Your task to perform on an android device: Open settings on Google Maps Image 0: 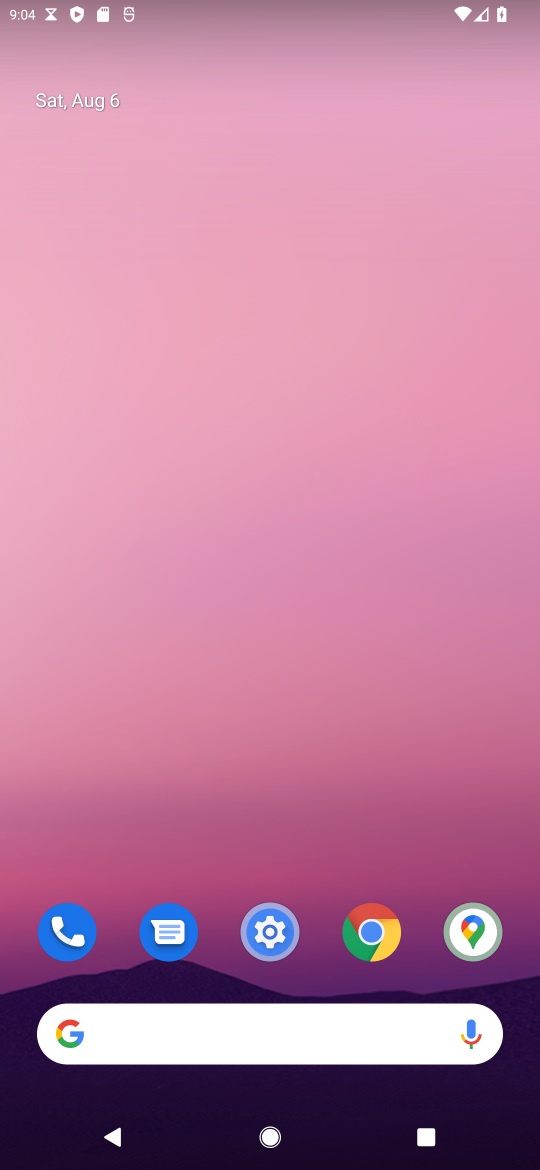
Step 0: click (472, 935)
Your task to perform on an android device: Open settings on Google Maps Image 1: 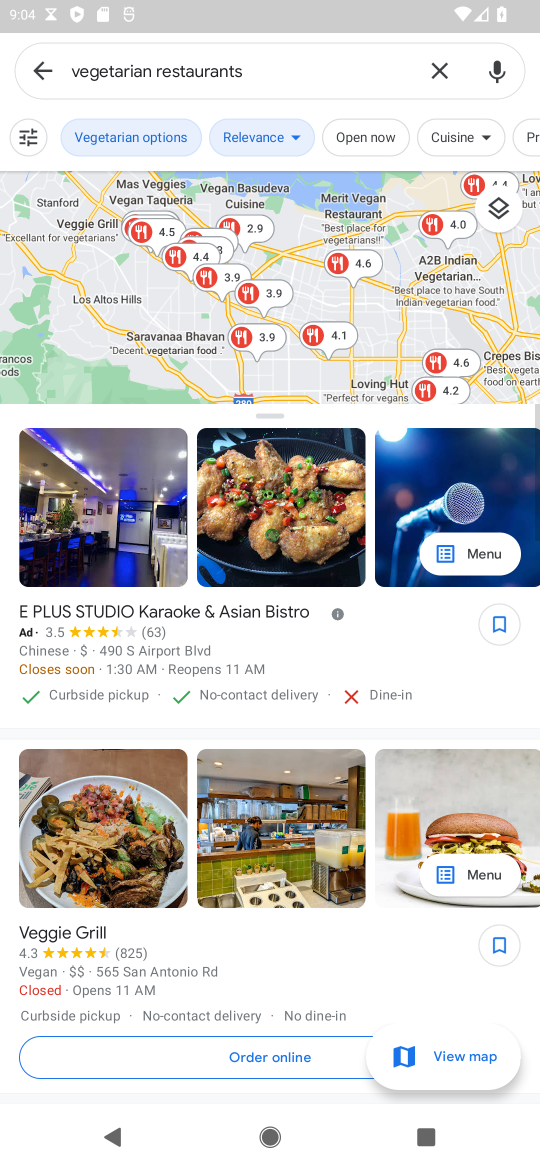
Step 1: press back button
Your task to perform on an android device: Open settings on Google Maps Image 2: 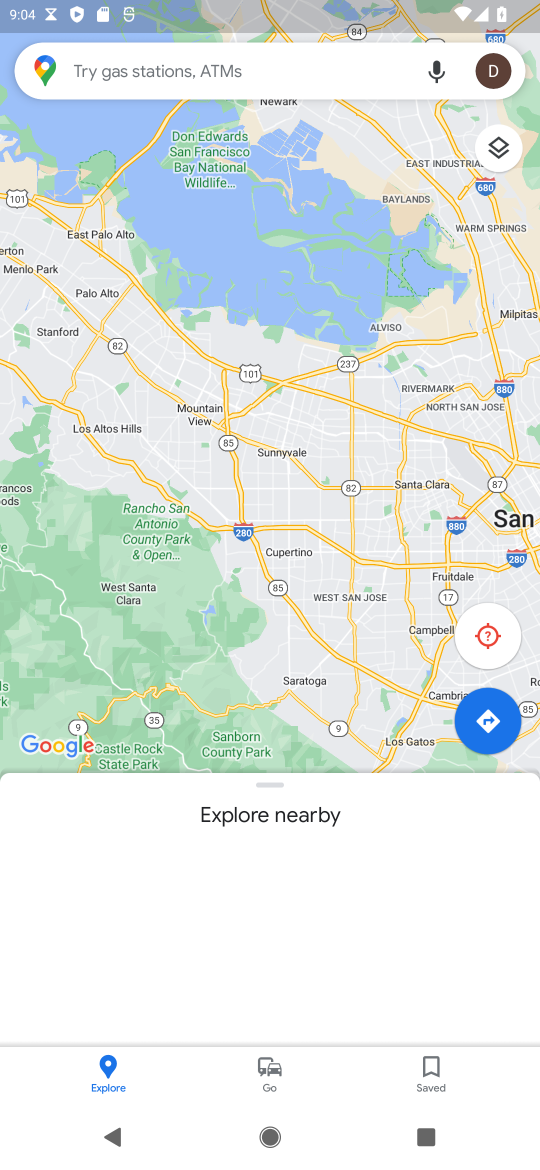
Step 2: click (493, 75)
Your task to perform on an android device: Open settings on Google Maps Image 3: 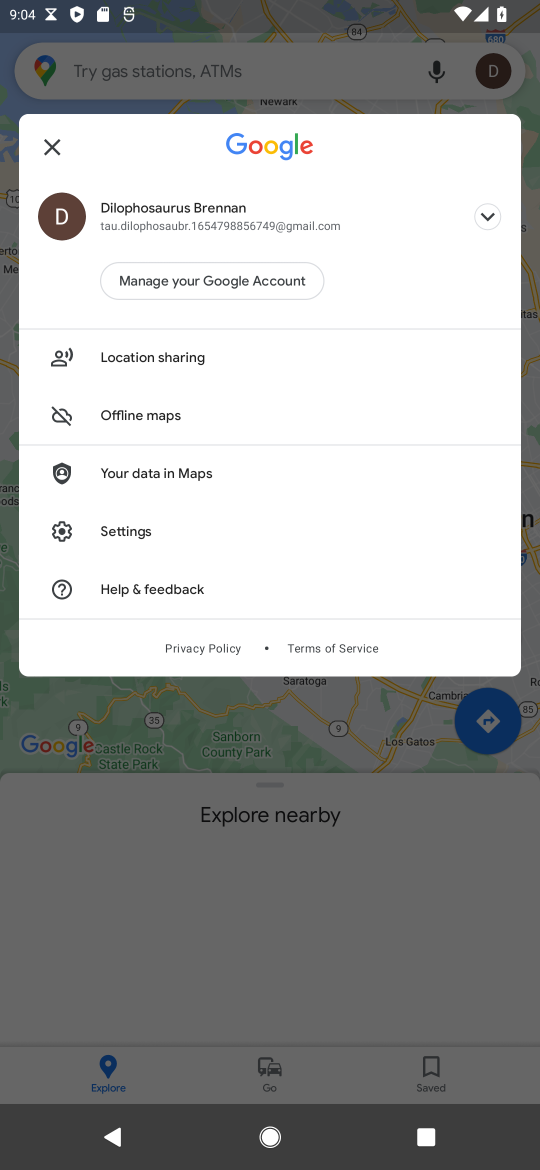
Step 3: click (131, 539)
Your task to perform on an android device: Open settings on Google Maps Image 4: 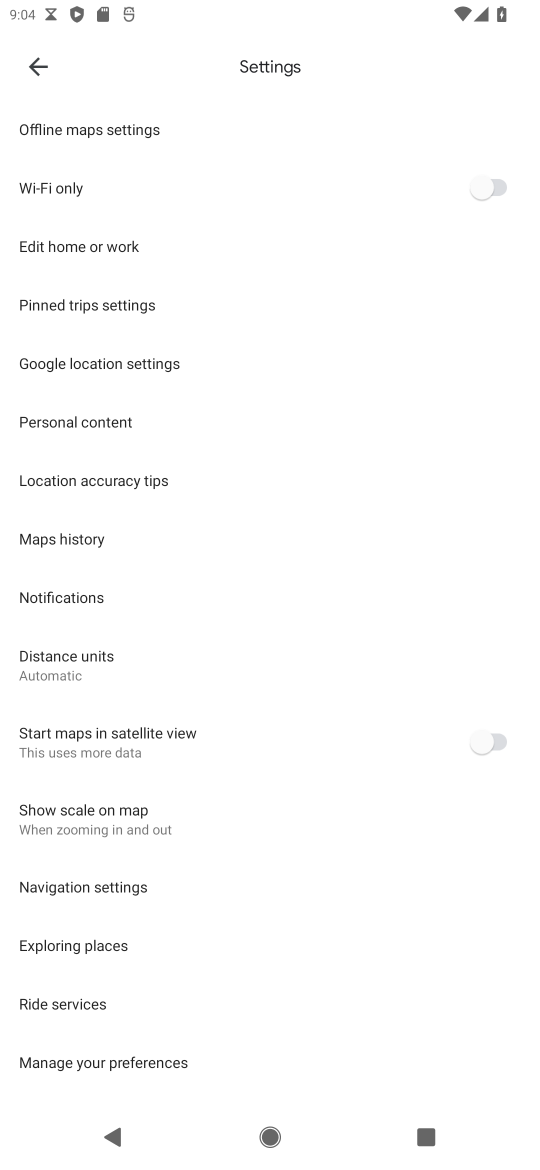
Step 4: task complete